Your task to perform on an android device: Play the last video I watched on Youtube Image 0: 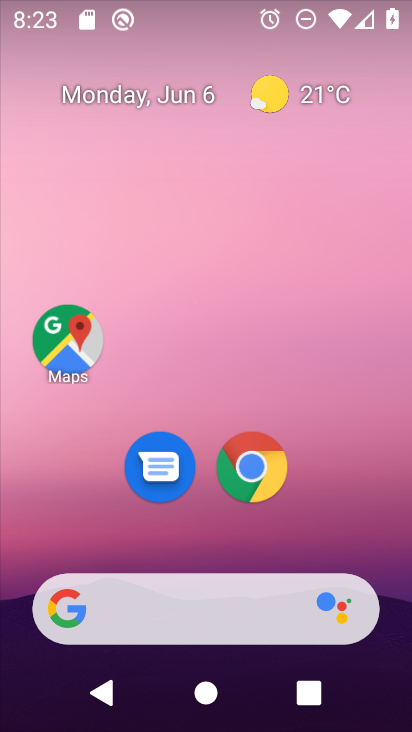
Step 0: drag from (364, 547) to (371, 154)
Your task to perform on an android device: Play the last video I watched on Youtube Image 1: 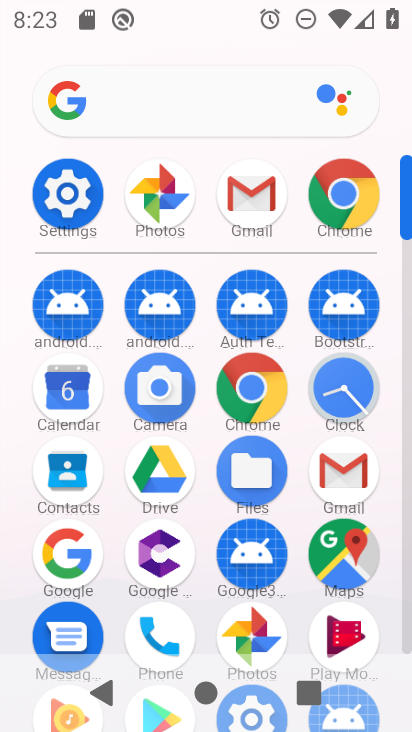
Step 1: drag from (382, 616) to (399, 309)
Your task to perform on an android device: Play the last video I watched on Youtube Image 2: 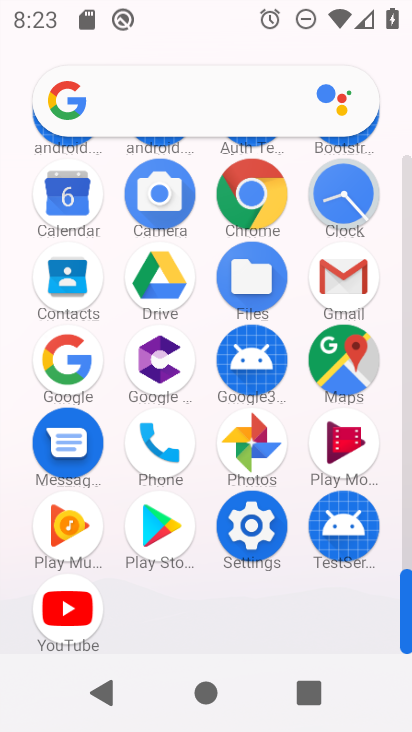
Step 2: click (77, 616)
Your task to perform on an android device: Play the last video I watched on Youtube Image 3: 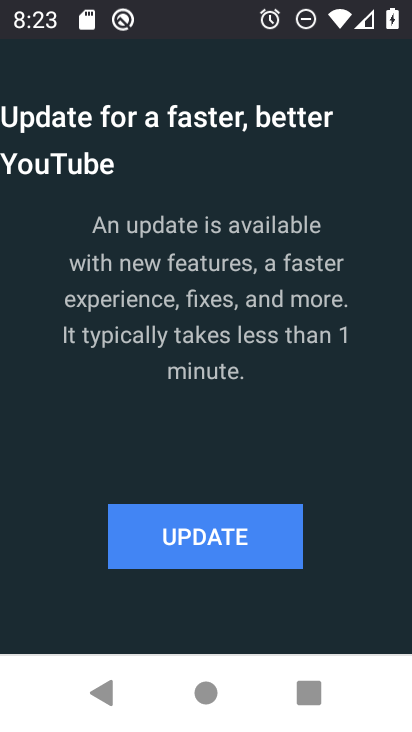
Step 3: click (194, 566)
Your task to perform on an android device: Play the last video I watched on Youtube Image 4: 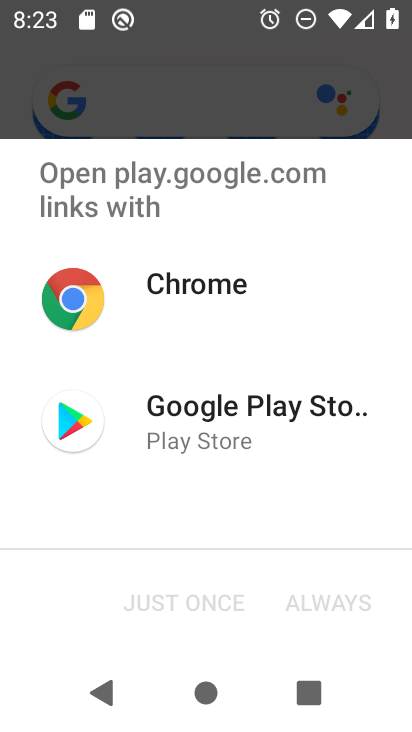
Step 4: click (216, 437)
Your task to perform on an android device: Play the last video I watched on Youtube Image 5: 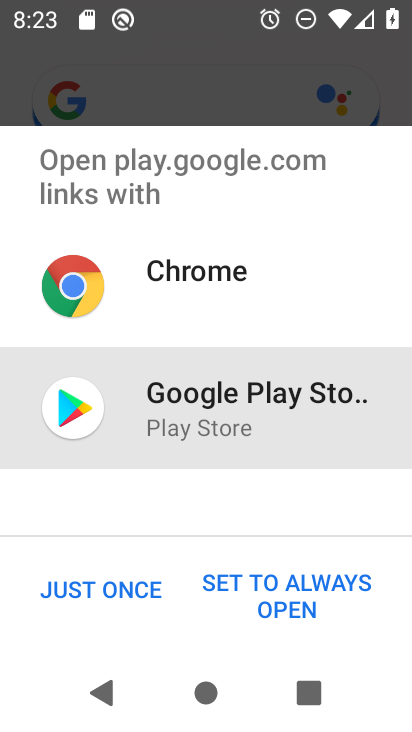
Step 5: click (118, 586)
Your task to perform on an android device: Play the last video I watched on Youtube Image 6: 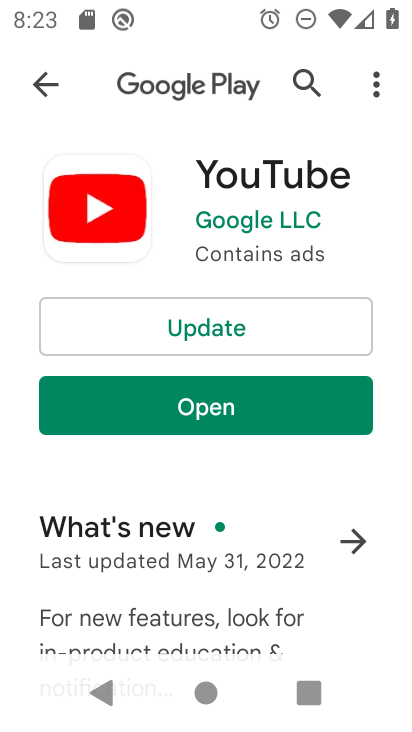
Step 6: click (243, 324)
Your task to perform on an android device: Play the last video I watched on Youtube Image 7: 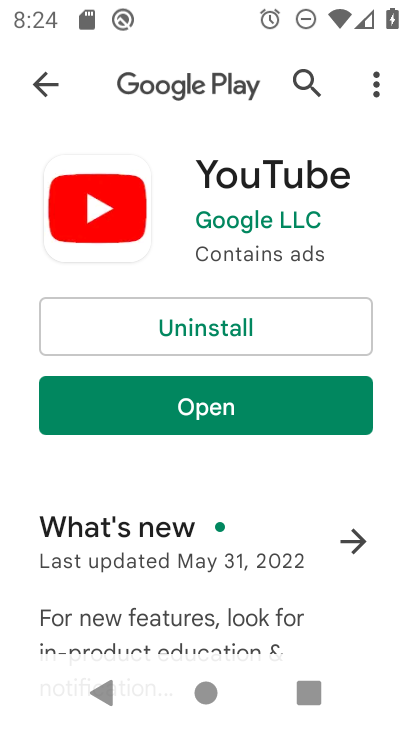
Step 7: click (255, 399)
Your task to perform on an android device: Play the last video I watched on Youtube Image 8: 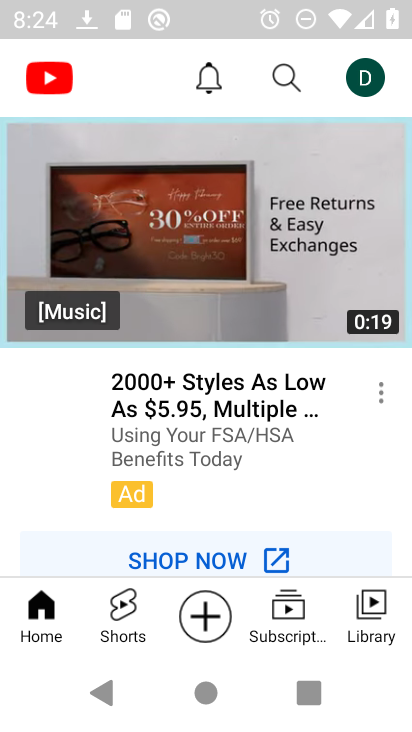
Step 8: drag from (309, 477) to (310, 203)
Your task to perform on an android device: Play the last video I watched on Youtube Image 9: 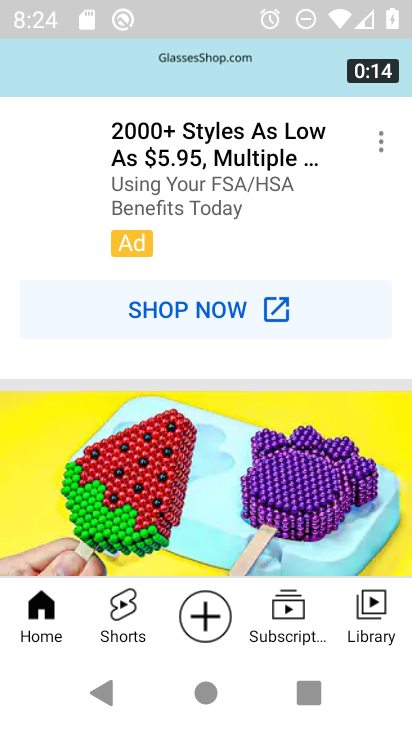
Step 9: click (367, 606)
Your task to perform on an android device: Play the last video I watched on Youtube Image 10: 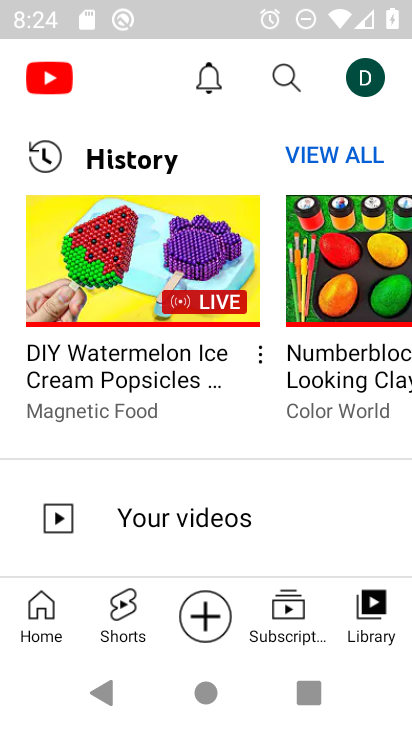
Step 10: click (327, 258)
Your task to perform on an android device: Play the last video I watched on Youtube Image 11: 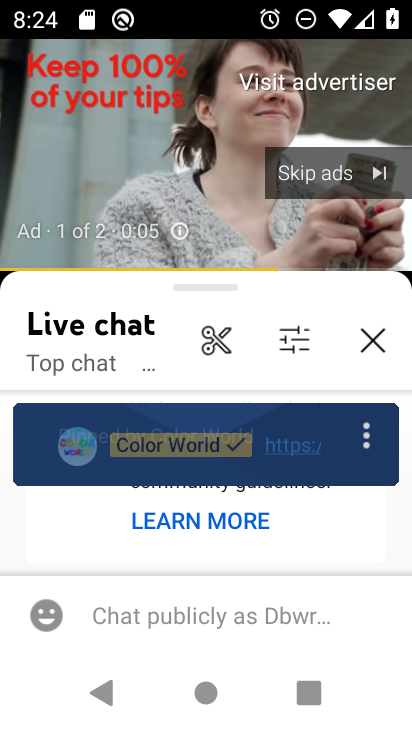
Step 11: task complete